Your task to perform on an android device: manage bookmarks in the chrome app Image 0: 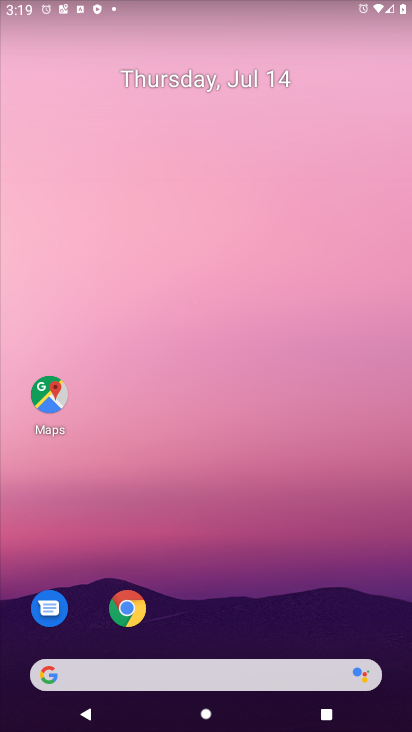
Step 0: click (127, 607)
Your task to perform on an android device: manage bookmarks in the chrome app Image 1: 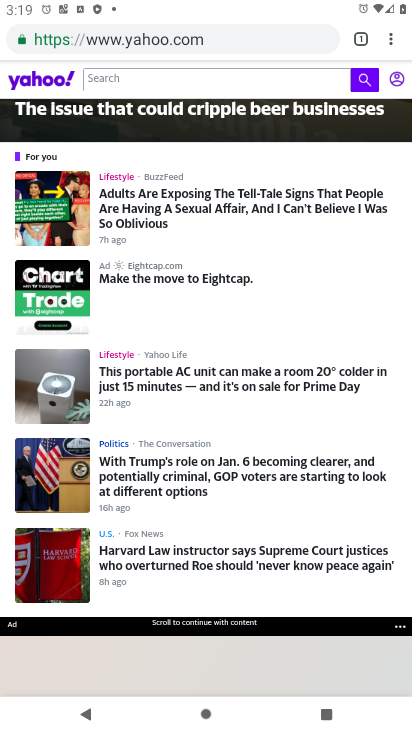
Step 1: click (389, 41)
Your task to perform on an android device: manage bookmarks in the chrome app Image 2: 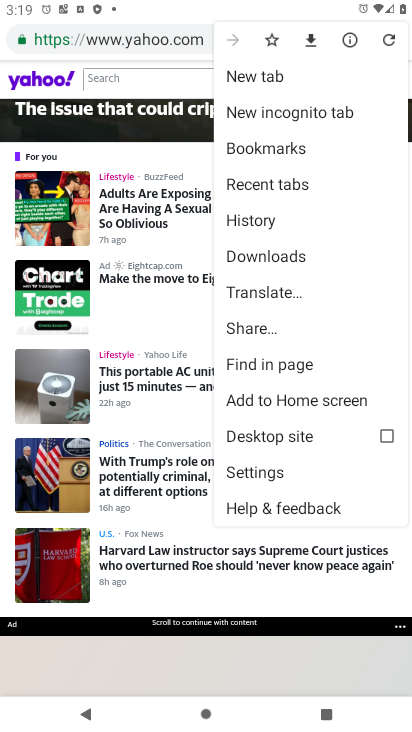
Step 2: click (259, 145)
Your task to perform on an android device: manage bookmarks in the chrome app Image 3: 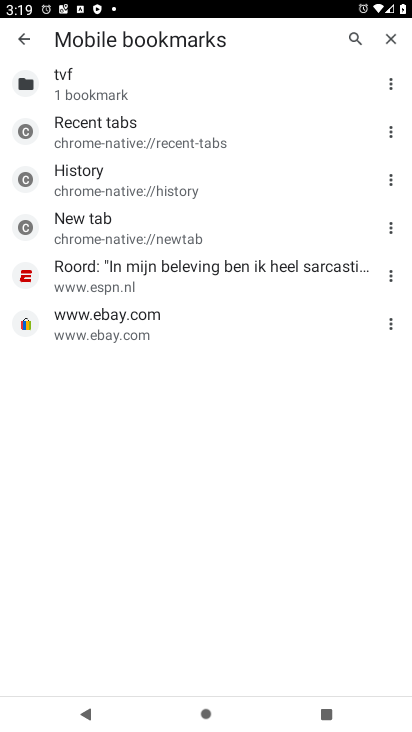
Step 3: click (88, 269)
Your task to perform on an android device: manage bookmarks in the chrome app Image 4: 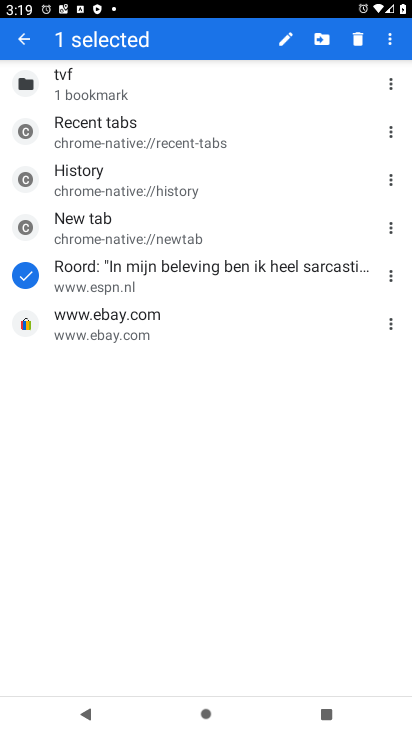
Step 4: click (322, 35)
Your task to perform on an android device: manage bookmarks in the chrome app Image 5: 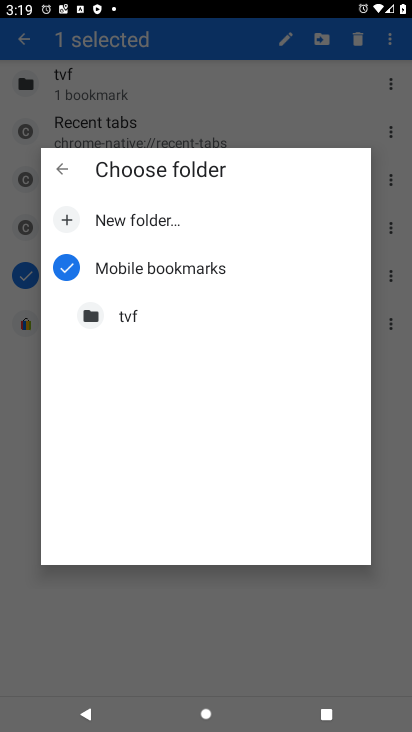
Step 5: click (65, 212)
Your task to perform on an android device: manage bookmarks in the chrome app Image 6: 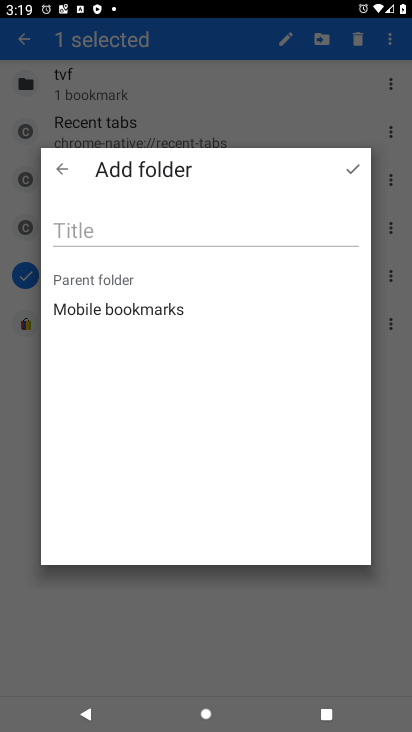
Step 6: click (102, 241)
Your task to perform on an android device: manage bookmarks in the chrome app Image 7: 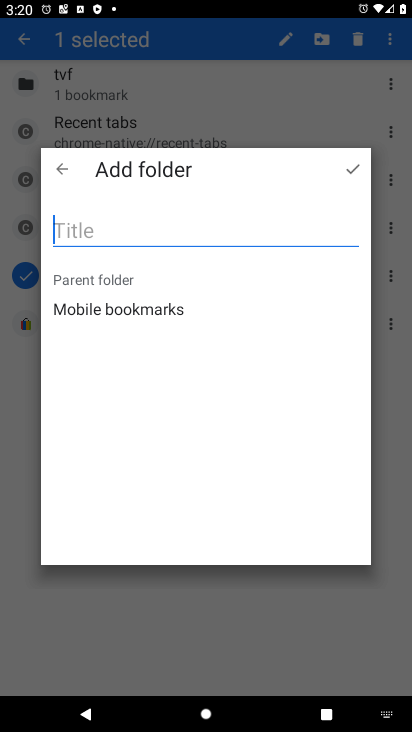
Step 7: type "tf"
Your task to perform on an android device: manage bookmarks in the chrome app Image 8: 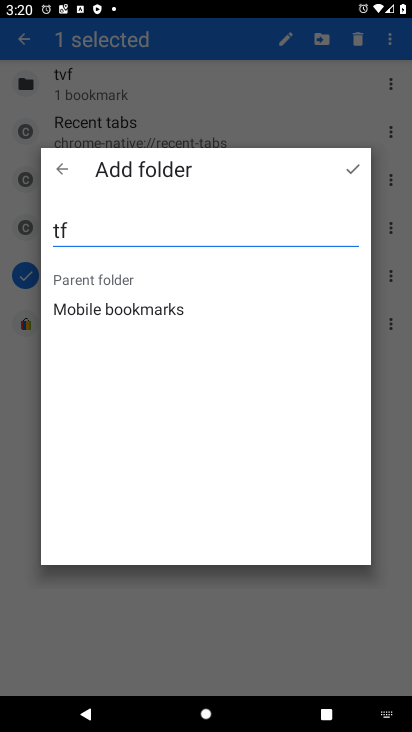
Step 8: click (350, 170)
Your task to perform on an android device: manage bookmarks in the chrome app Image 9: 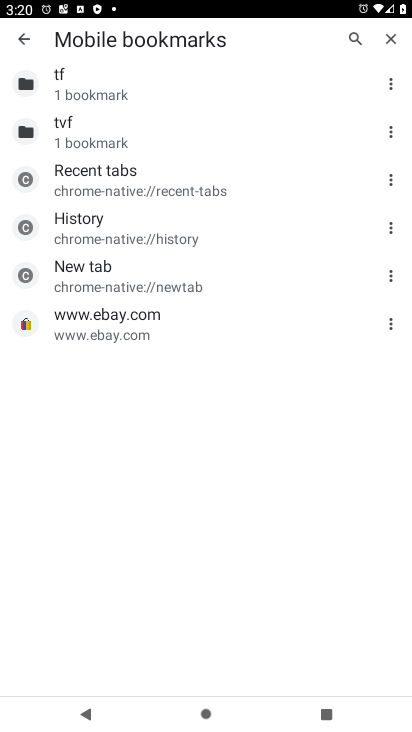
Step 9: task complete